Your task to perform on an android device: Go to sound settings Image 0: 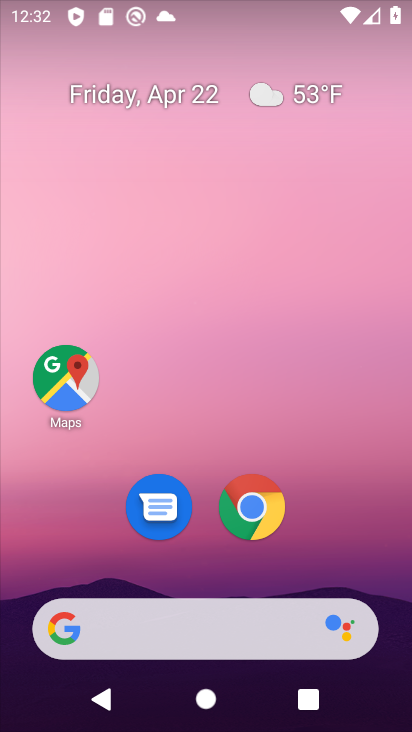
Step 0: drag from (316, 476) to (266, 55)
Your task to perform on an android device: Go to sound settings Image 1: 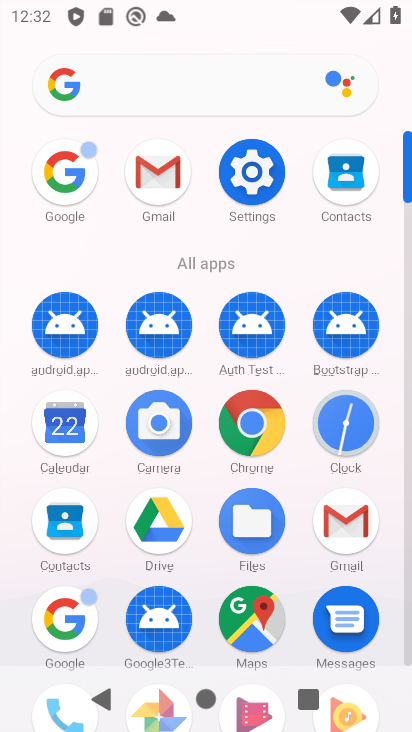
Step 1: click (249, 178)
Your task to perform on an android device: Go to sound settings Image 2: 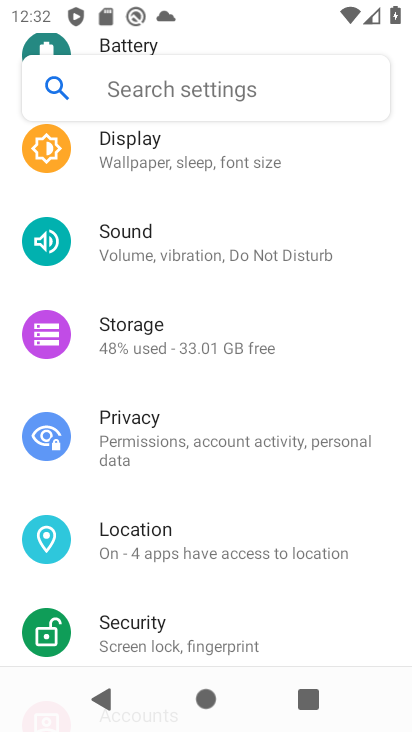
Step 2: click (161, 243)
Your task to perform on an android device: Go to sound settings Image 3: 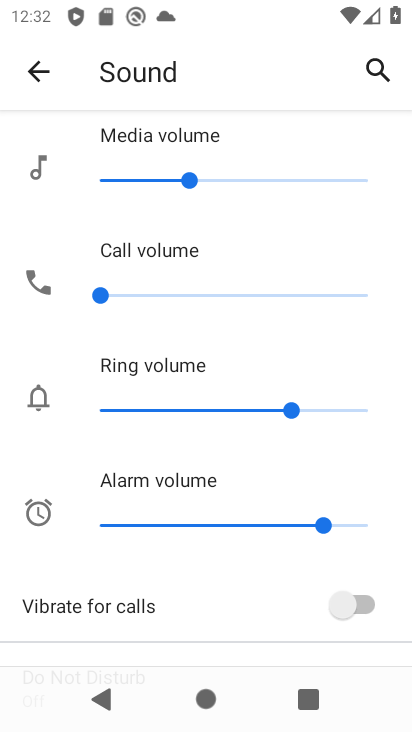
Step 3: task complete